Your task to perform on an android device: Empty the shopping cart on walmart.com. Add "razer deathadder" to the cart on walmart.com Image 0: 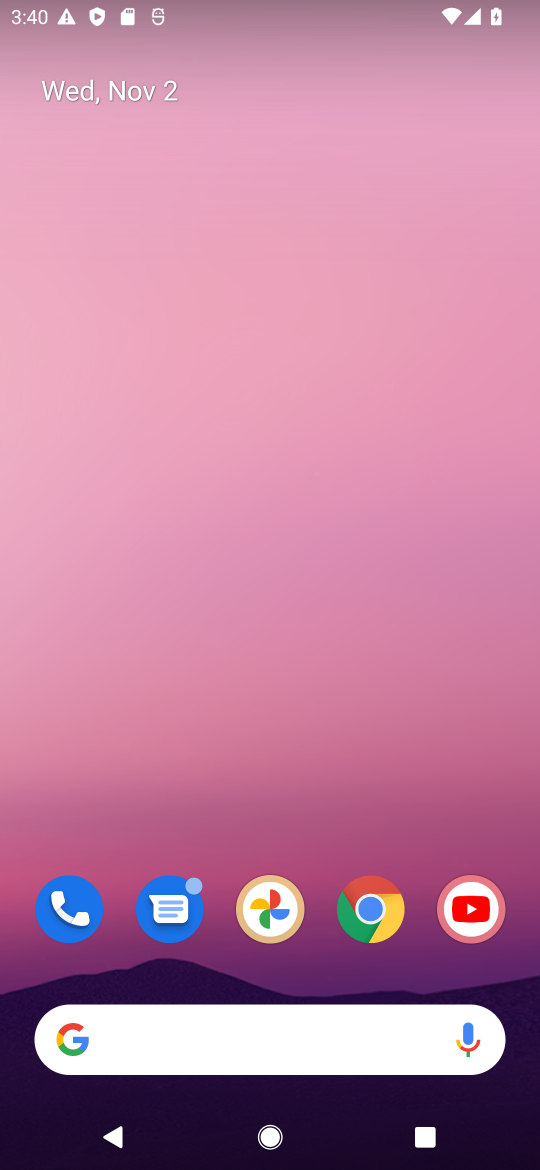
Step 0: click (361, 913)
Your task to perform on an android device: Empty the shopping cart on walmart.com. Add "razer deathadder" to the cart on walmart.com Image 1: 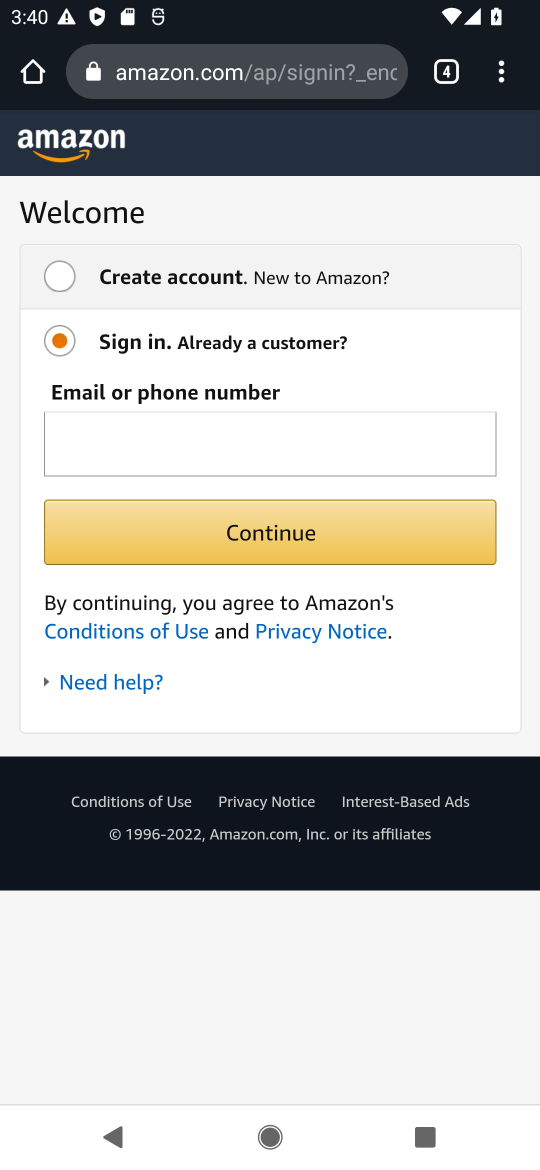
Step 1: click (321, 78)
Your task to perform on an android device: Empty the shopping cart on walmart.com. Add "razer deathadder" to the cart on walmart.com Image 2: 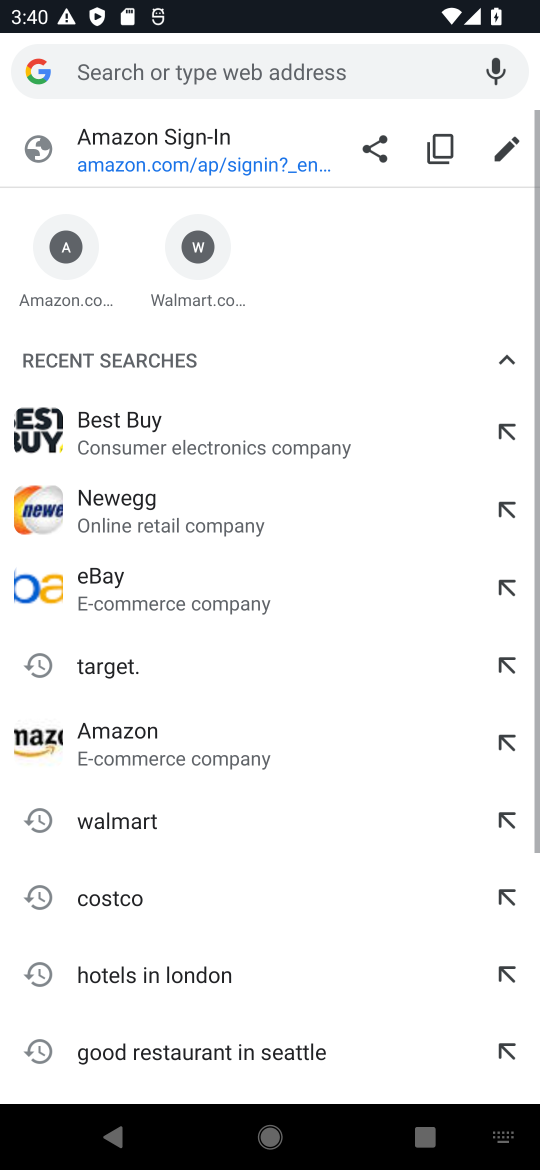
Step 2: drag from (255, 937) to (289, 844)
Your task to perform on an android device: Empty the shopping cart on walmart.com. Add "razer deathadder" to the cart on walmart.com Image 3: 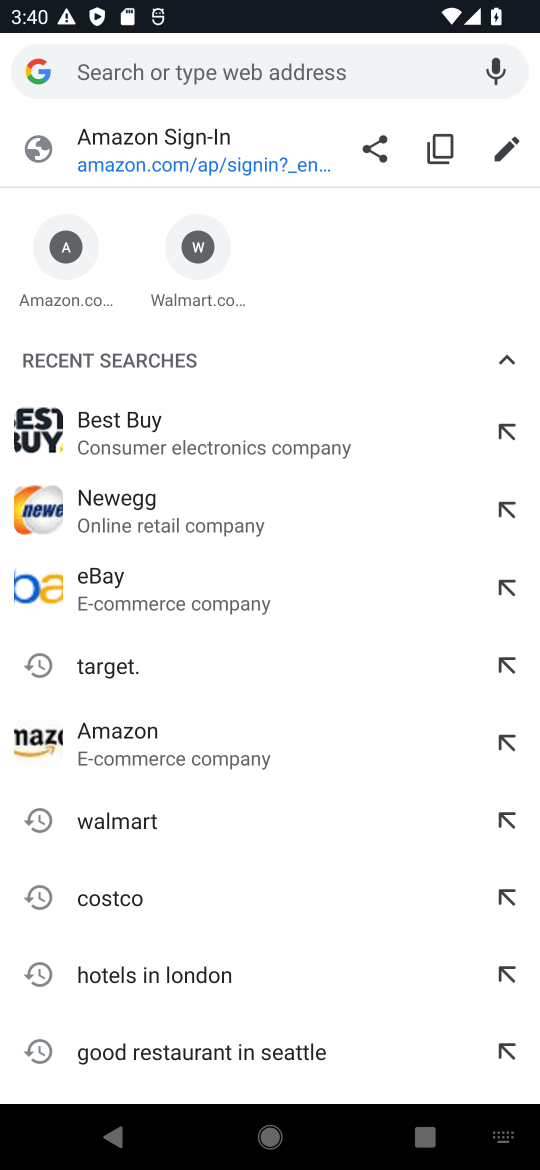
Step 3: click (206, 245)
Your task to perform on an android device: Empty the shopping cart on walmart.com. Add "razer deathadder" to the cart on walmart.com Image 4: 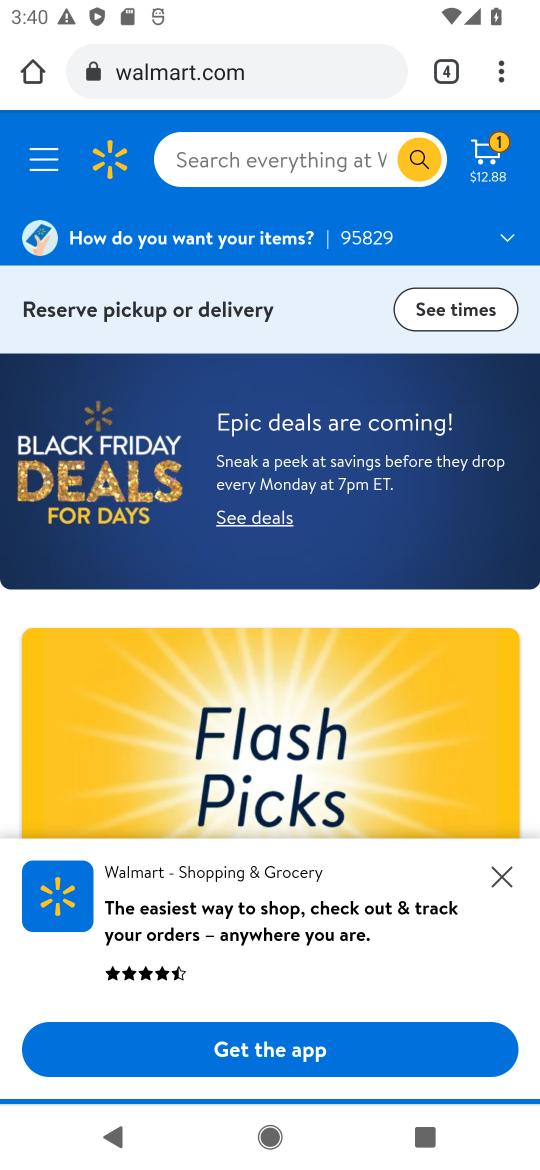
Step 4: click (487, 162)
Your task to perform on an android device: Empty the shopping cart on walmart.com. Add "razer deathadder" to the cart on walmart.com Image 5: 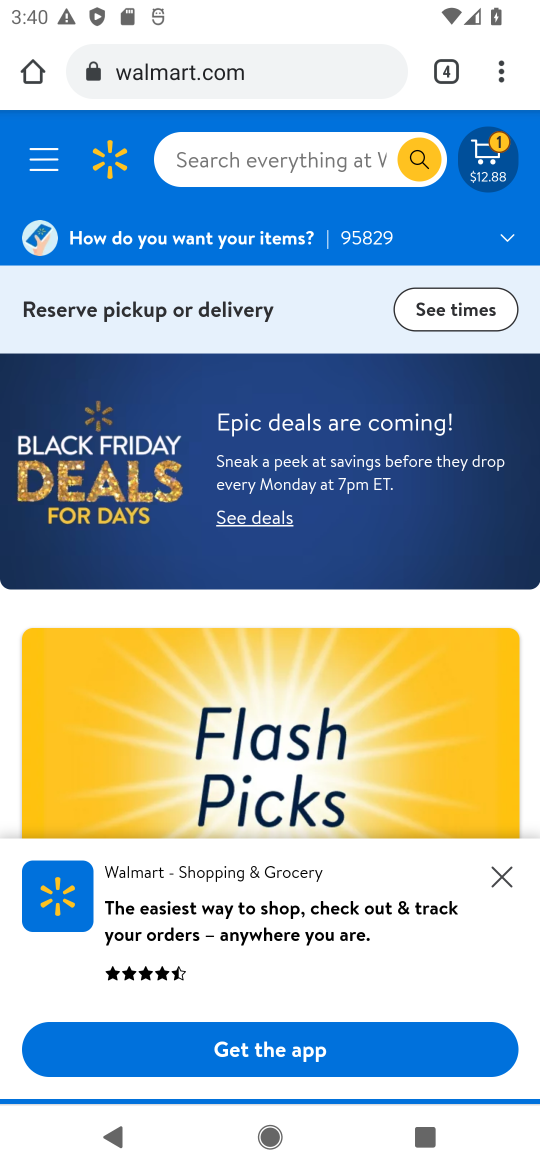
Step 5: click (500, 866)
Your task to perform on an android device: Empty the shopping cart on walmart.com. Add "razer deathadder" to the cart on walmart.com Image 6: 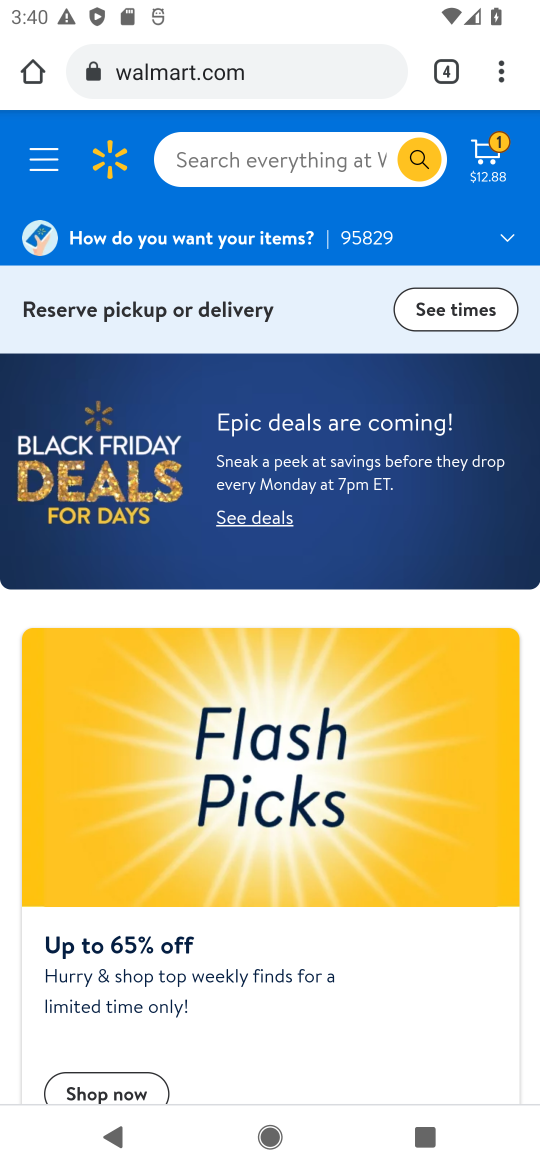
Step 6: click (497, 139)
Your task to perform on an android device: Empty the shopping cart on walmart.com. Add "razer deathadder" to the cart on walmart.com Image 7: 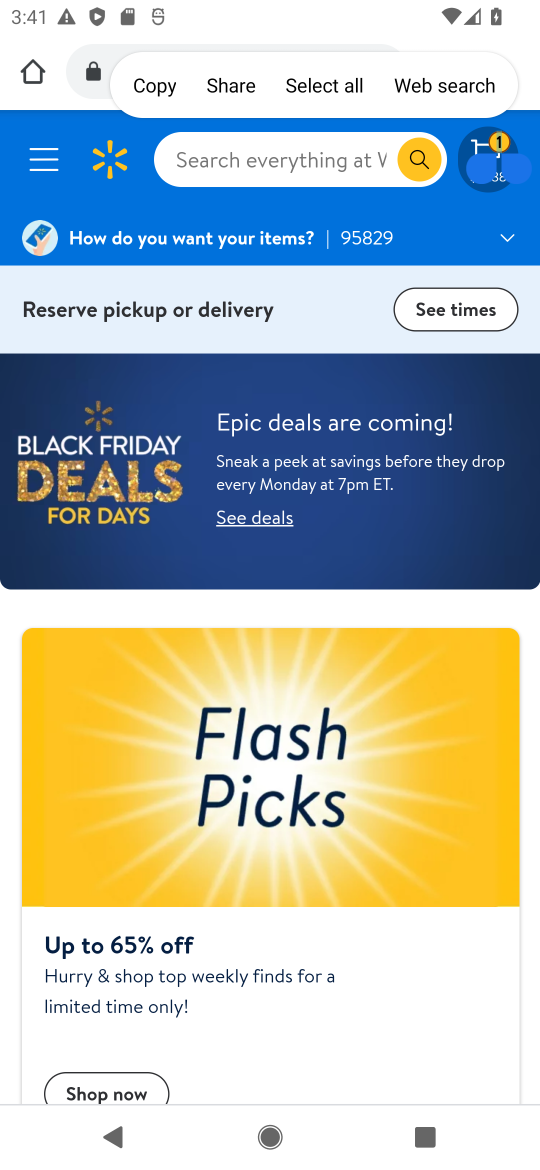
Step 7: click (492, 155)
Your task to perform on an android device: Empty the shopping cart on walmart.com. Add "razer deathadder" to the cart on walmart.com Image 8: 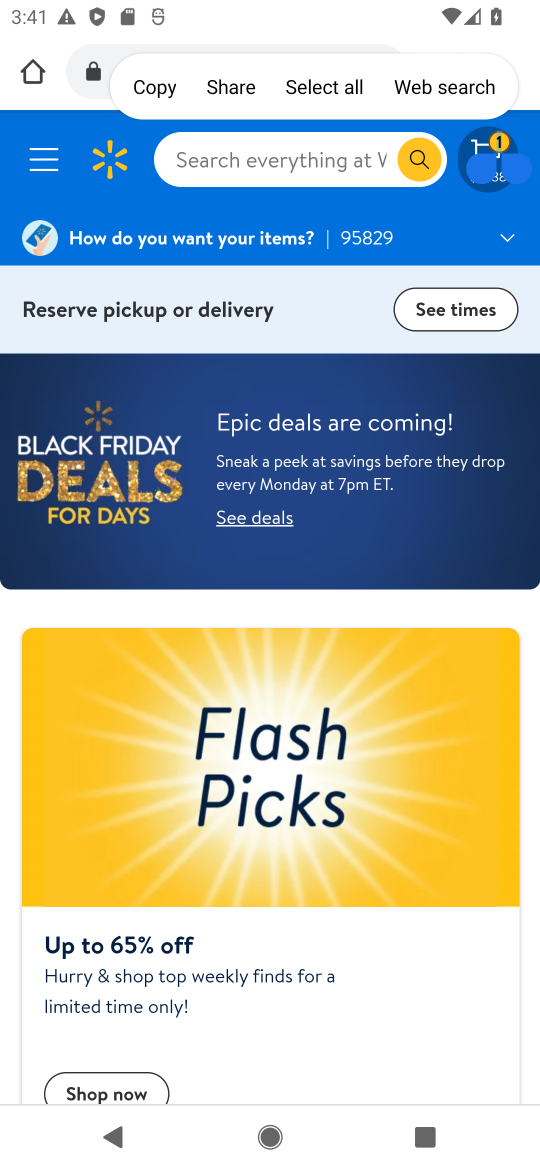
Step 8: click (501, 139)
Your task to perform on an android device: Empty the shopping cart on walmart.com. Add "razer deathadder" to the cart on walmart.com Image 9: 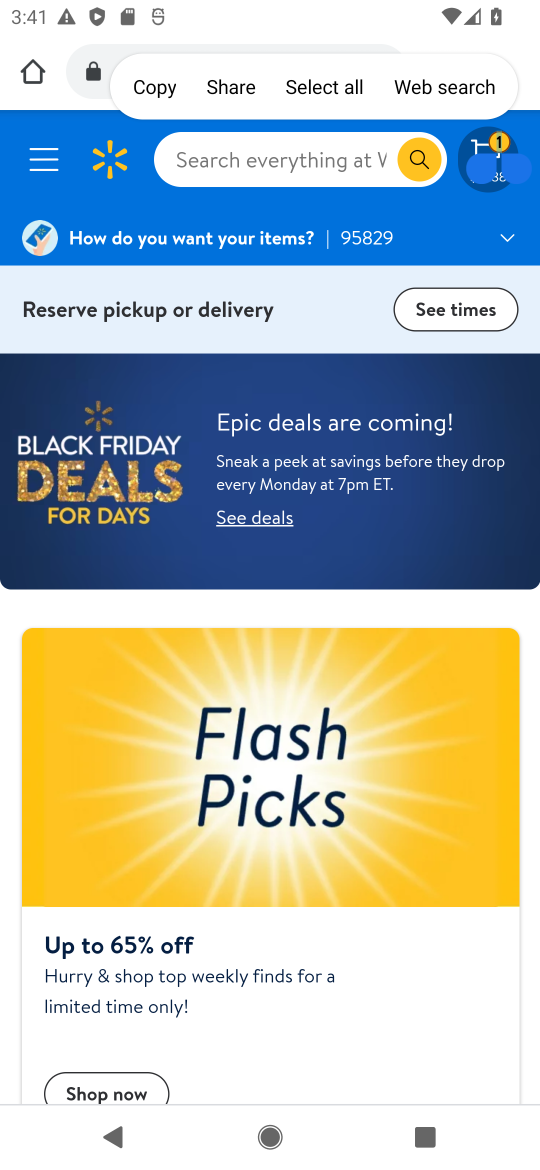
Step 9: click (495, 189)
Your task to perform on an android device: Empty the shopping cart on walmart.com. Add "razer deathadder" to the cart on walmart.com Image 10: 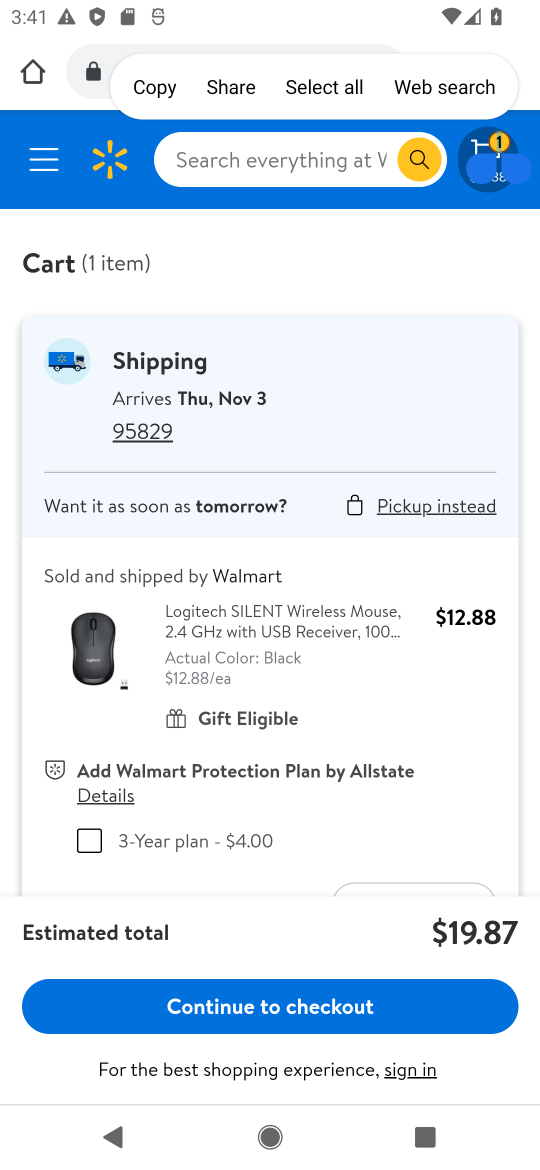
Step 10: drag from (312, 792) to (436, 534)
Your task to perform on an android device: Empty the shopping cart on walmart.com. Add "razer deathadder" to the cart on walmart.com Image 11: 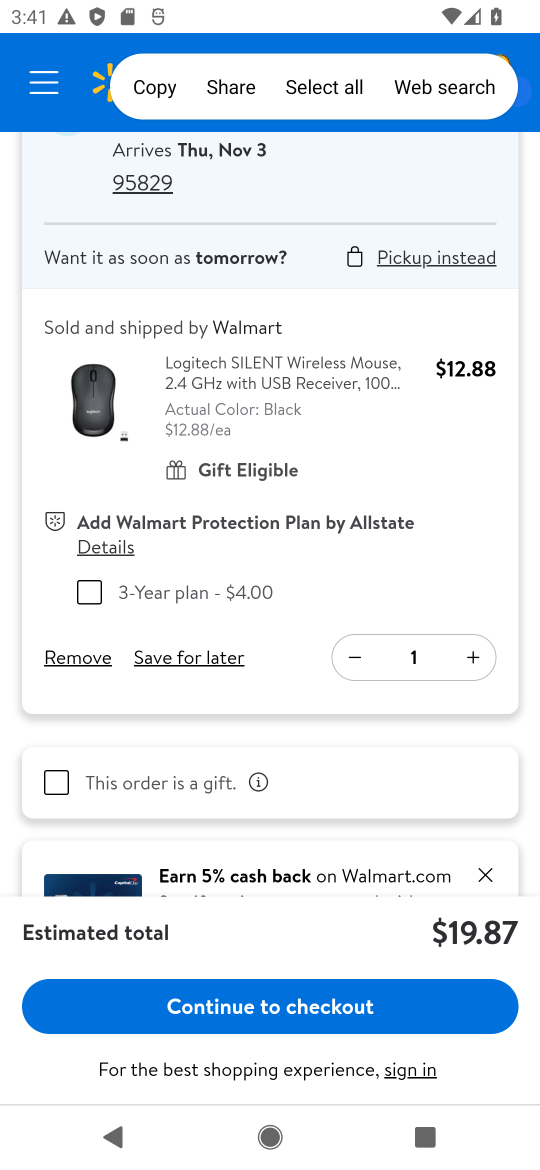
Step 11: click (81, 657)
Your task to perform on an android device: Empty the shopping cart on walmart.com. Add "razer deathadder" to the cart on walmart.com Image 12: 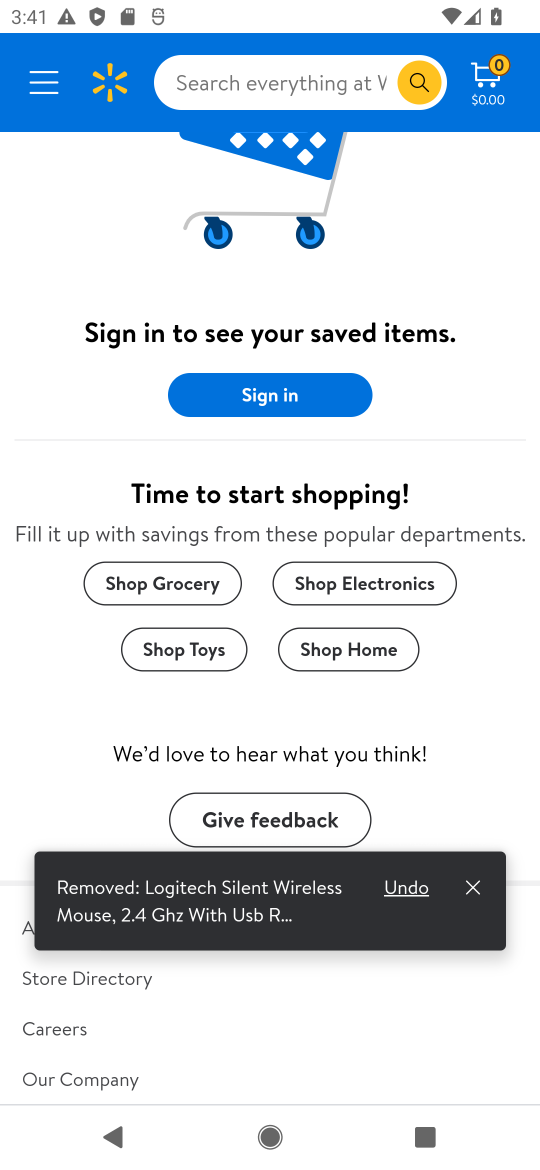
Step 12: click (229, 77)
Your task to perform on an android device: Empty the shopping cart on walmart.com. Add "razer deathadder" to the cart on walmart.com Image 13: 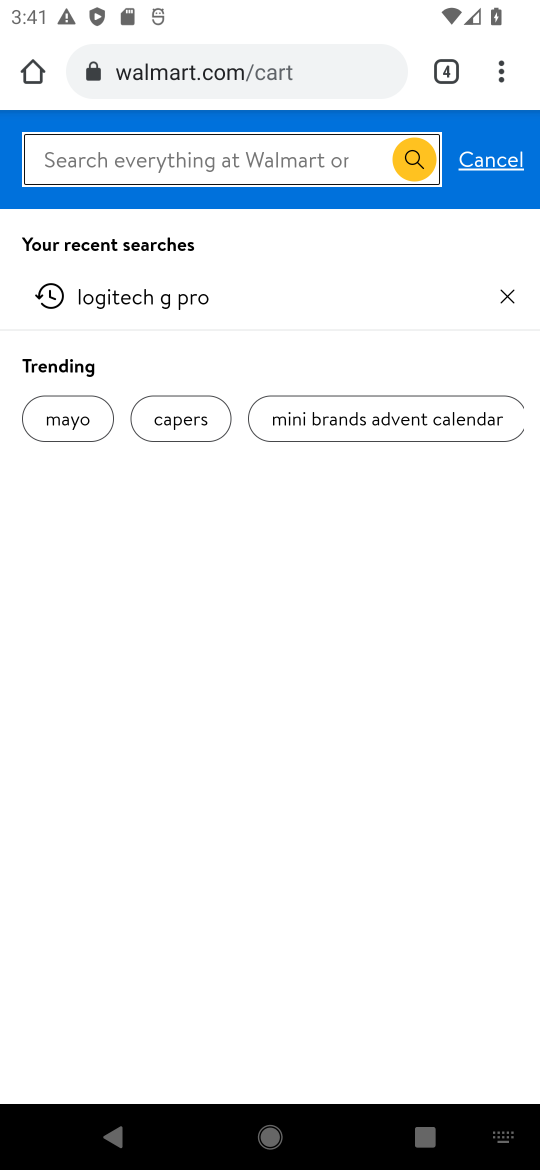
Step 13: type "razer deathadder"
Your task to perform on an android device: Empty the shopping cart on walmart.com. Add "razer deathadder" to the cart on walmart.com Image 14: 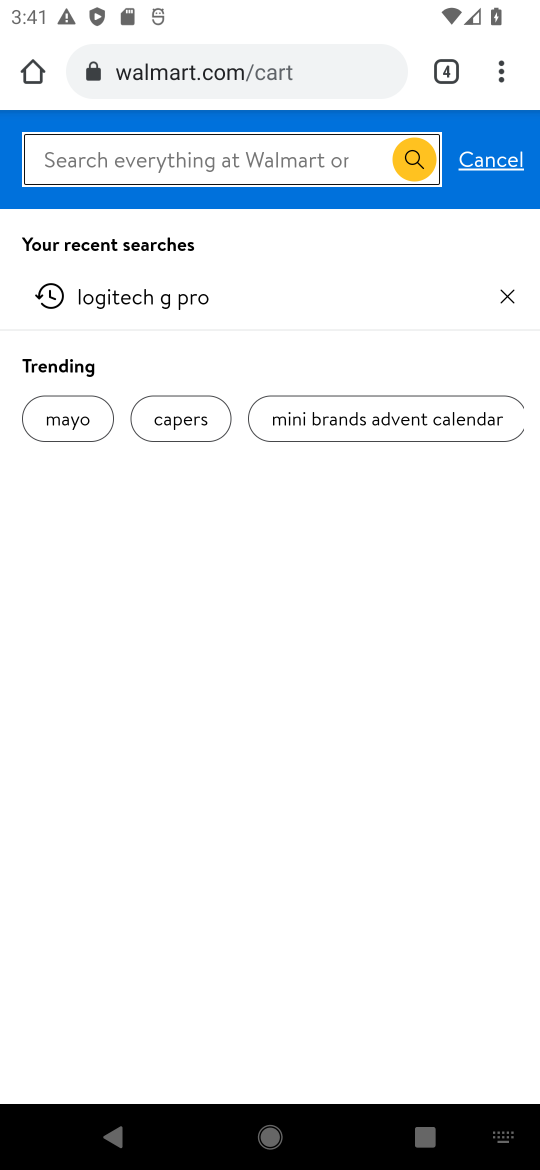
Step 14: press enter
Your task to perform on an android device: Empty the shopping cart on walmart.com. Add "razer deathadder" to the cart on walmart.com Image 15: 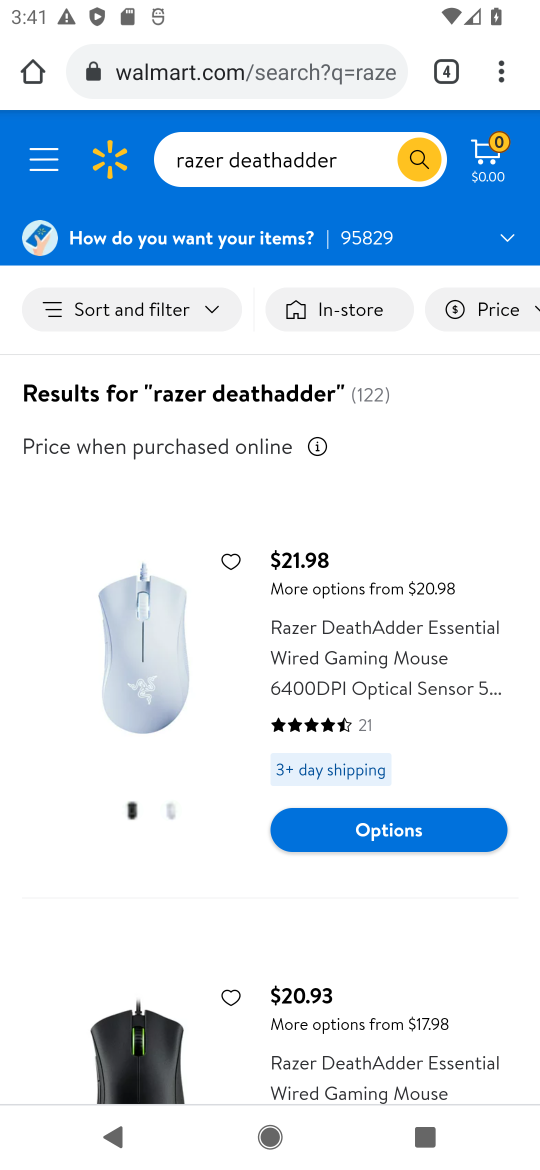
Step 15: click (343, 648)
Your task to perform on an android device: Empty the shopping cart on walmart.com. Add "razer deathadder" to the cart on walmart.com Image 16: 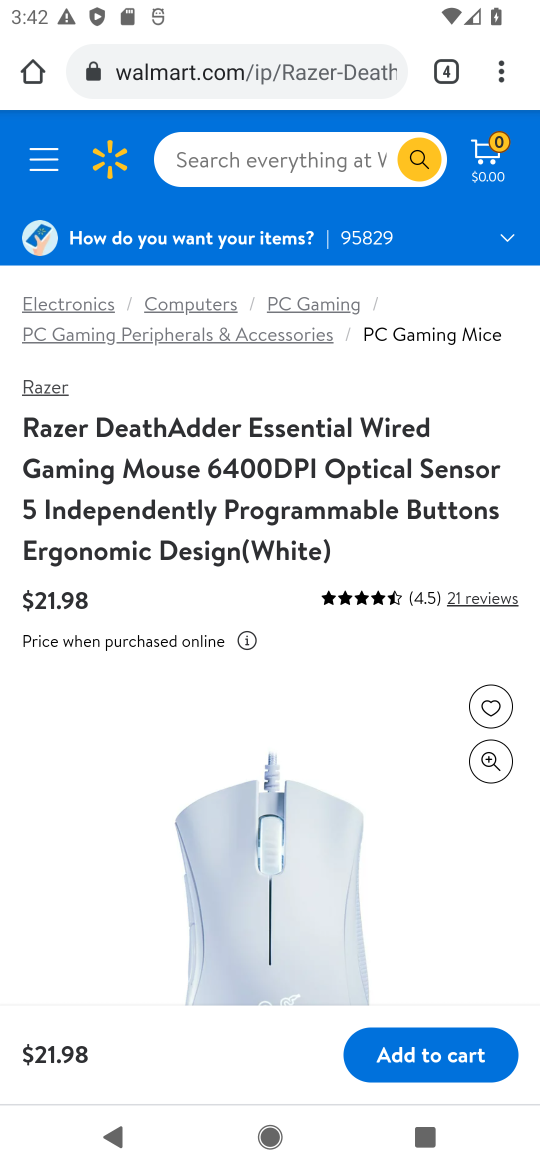
Step 16: click (425, 1057)
Your task to perform on an android device: Empty the shopping cart on walmart.com. Add "razer deathadder" to the cart on walmart.com Image 17: 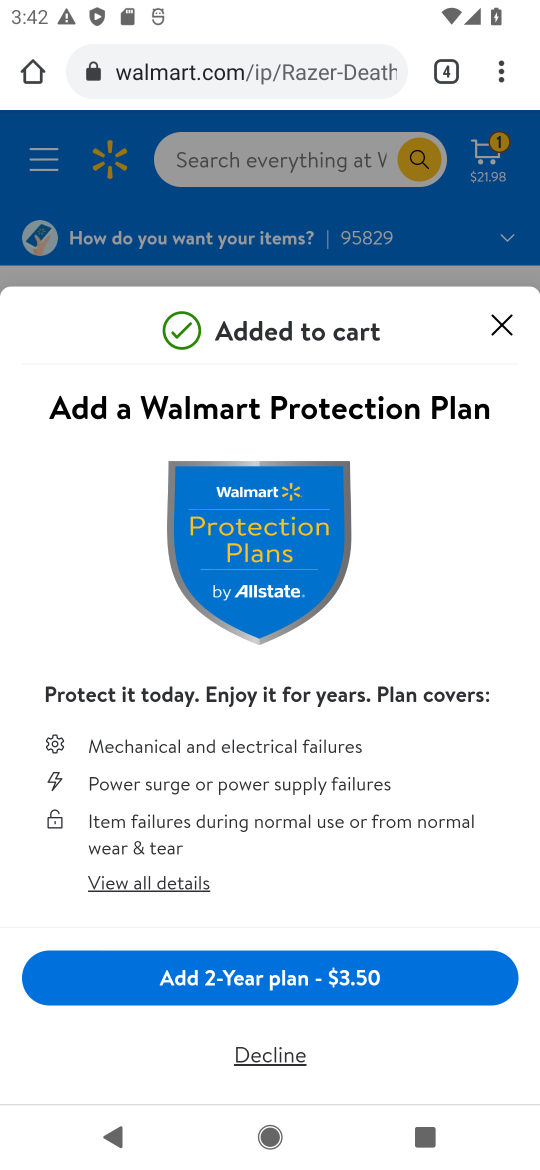
Step 17: click (504, 317)
Your task to perform on an android device: Empty the shopping cart on walmart.com. Add "razer deathadder" to the cart on walmart.com Image 18: 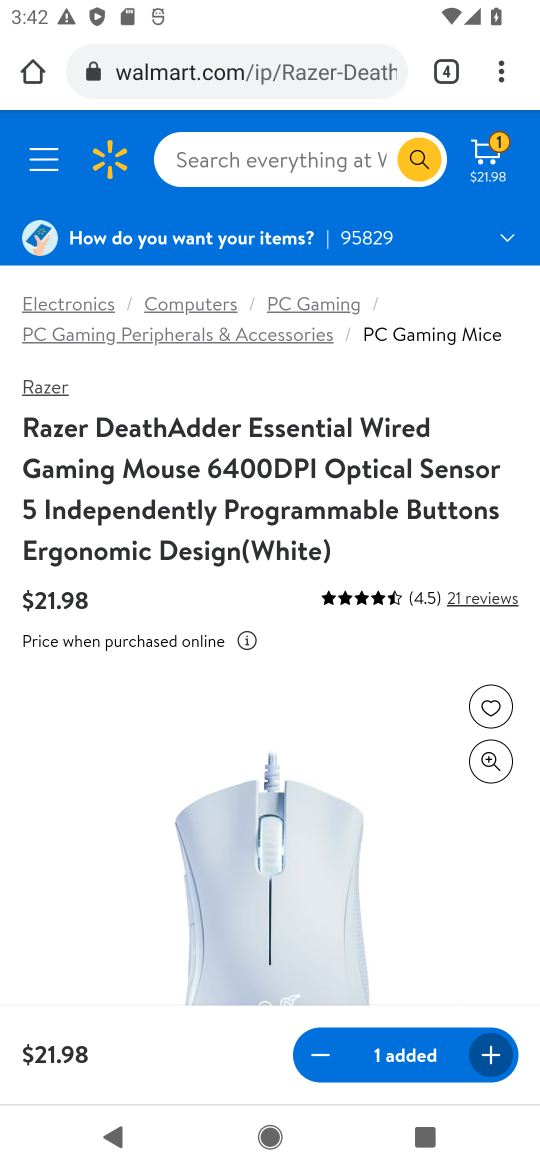
Step 18: task complete